Your task to perform on an android device: Open Youtube and go to the subscriptions tab Image 0: 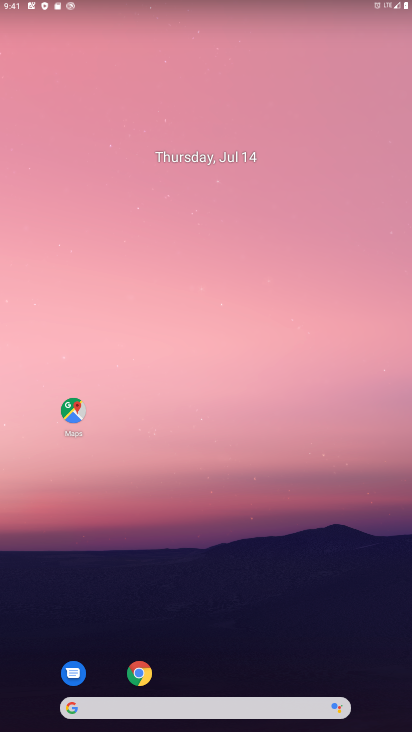
Step 0: press home button
Your task to perform on an android device: Open Youtube and go to the subscriptions tab Image 1: 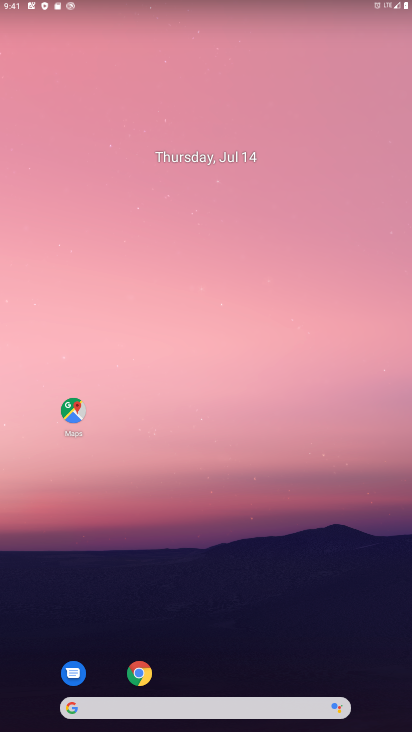
Step 1: drag from (191, 703) to (206, 283)
Your task to perform on an android device: Open Youtube and go to the subscriptions tab Image 2: 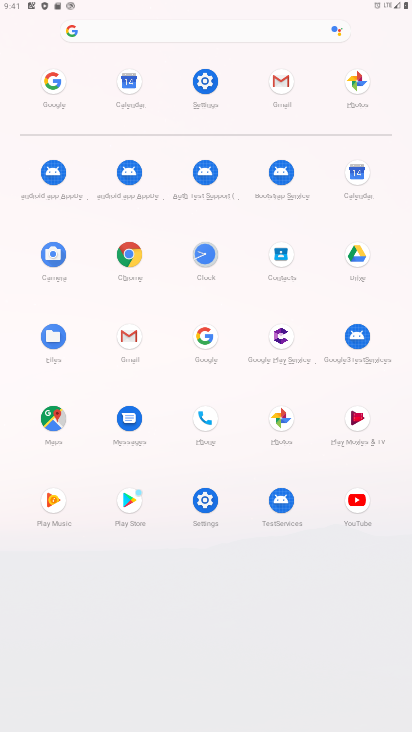
Step 2: click (357, 502)
Your task to perform on an android device: Open Youtube and go to the subscriptions tab Image 3: 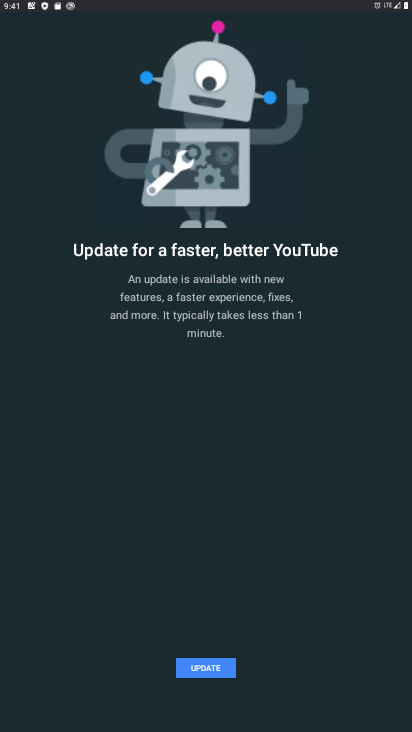
Step 3: click (214, 667)
Your task to perform on an android device: Open Youtube and go to the subscriptions tab Image 4: 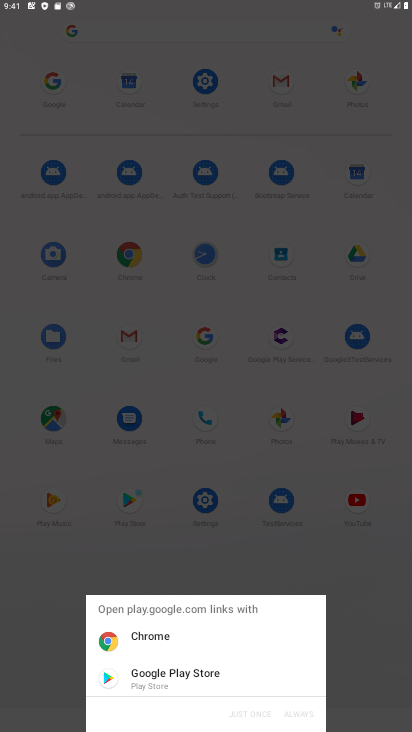
Step 4: click (215, 667)
Your task to perform on an android device: Open Youtube and go to the subscriptions tab Image 5: 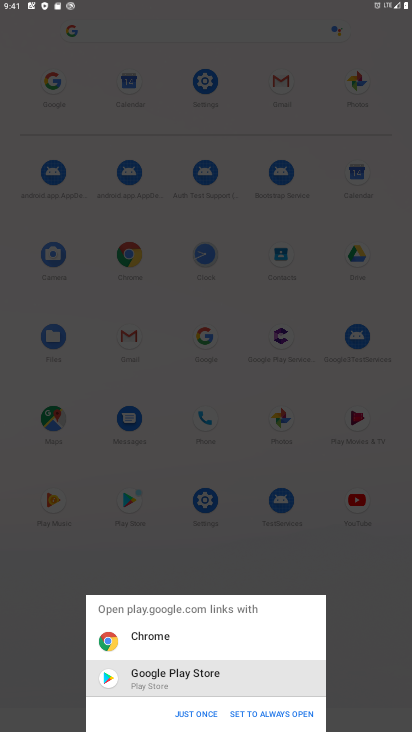
Step 5: click (198, 714)
Your task to perform on an android device: Open Youtube and go to the subscriptions tab Image 6: 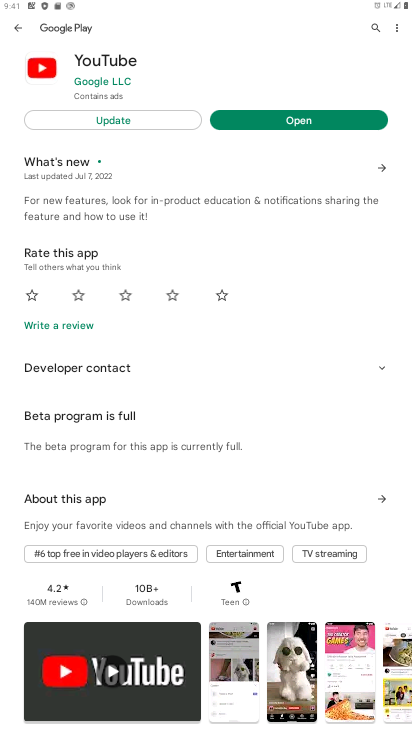
Step 6: click (105, 122)
Your task to perform on an android device: Open Youtube and go to the subscriptions tab Image 7: 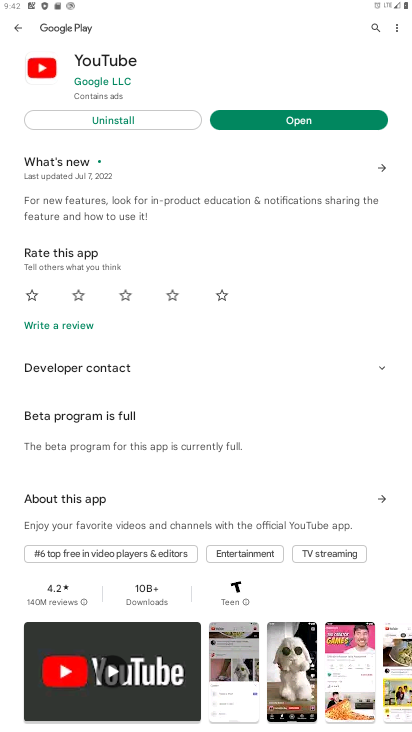
Step 7: click (270, 116)
Your task to perform on an android device: Open Youtube and go to the subscriptions tab Image 8: 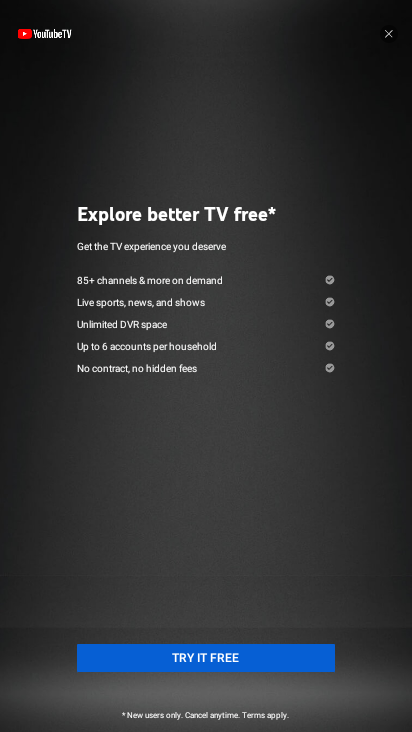
Step 8: click (391, 37)
Your task to perform on an android device: Open Youtube and go to the subscriptions tab Image 9: 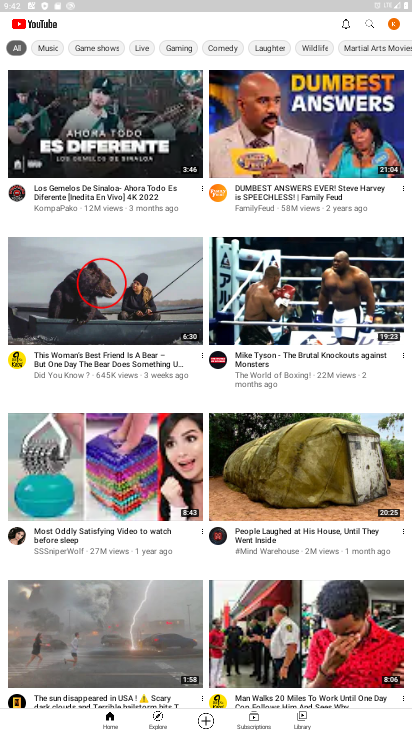
Step 9: click (255, 719)
Your task to perform on an android device: Open Youtube and go to the subscriptions tab Image 10: 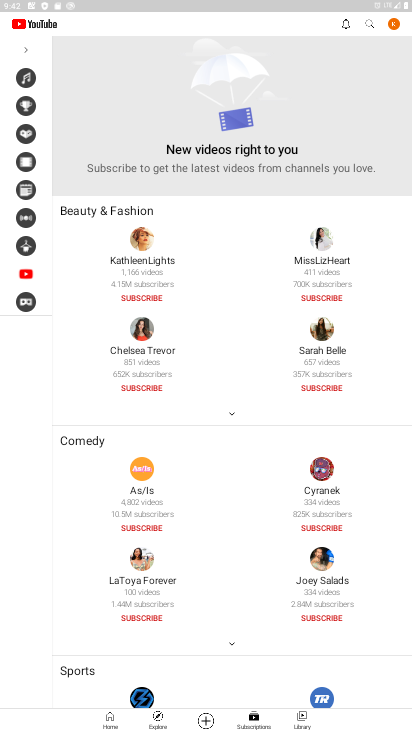
Step 10: task complete